Your task to perform on an android device: install app "Adobe Express: Graphic Design" Image 0: 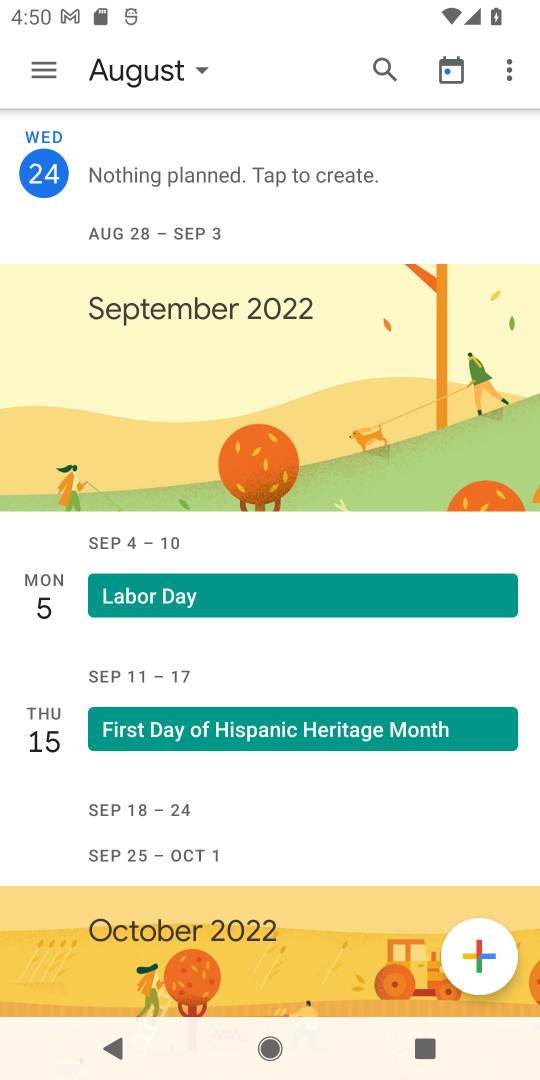
Step 0: press home button
Your task to perform on an android device: install app "Adobe Express: Graphic Design" Image 1: 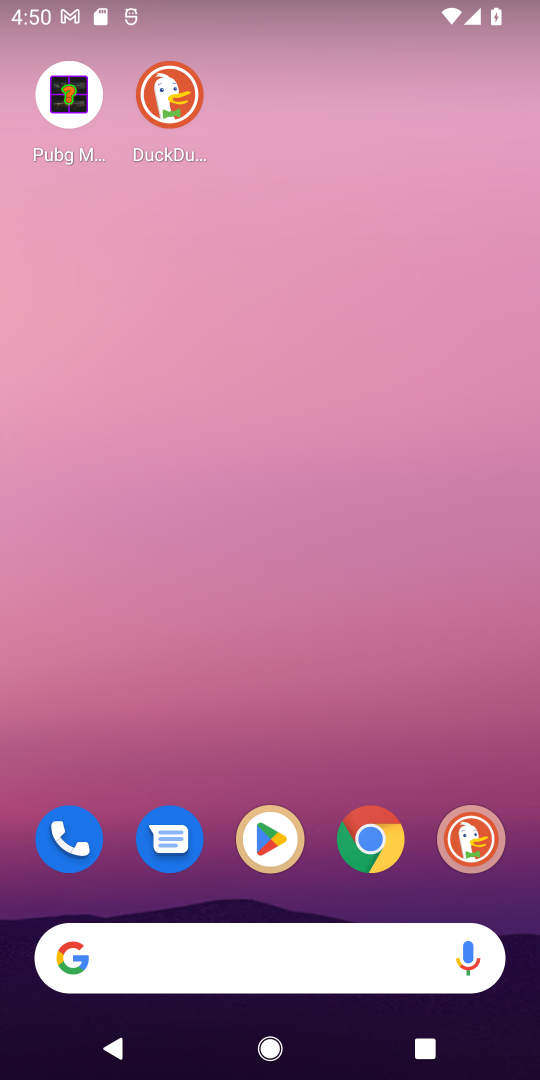
Step 1: click (265, 831)
Your task to perform on an android device: install app "Adobe Express: Graphic Design" Image 2: 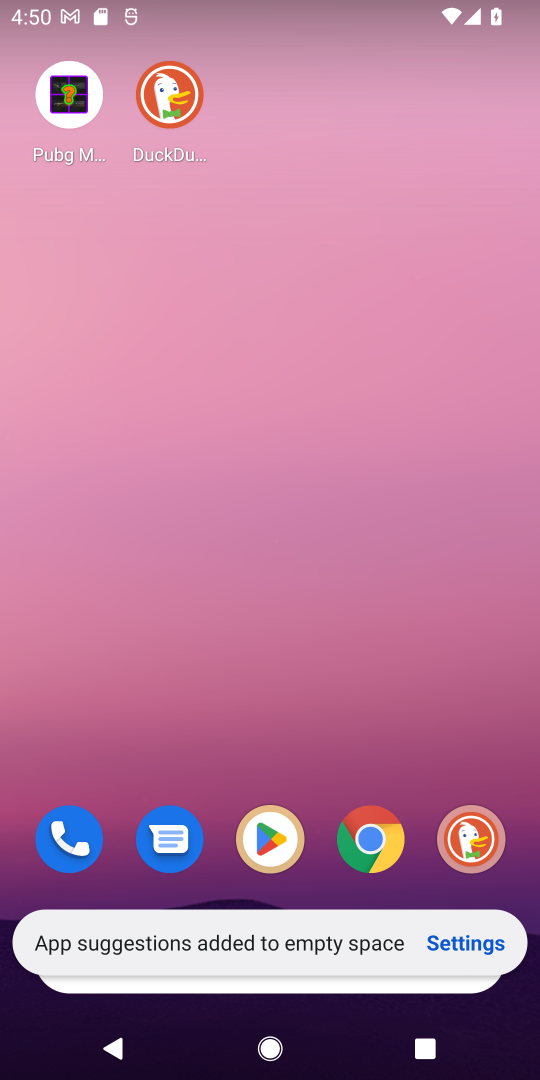
Step 2: click (265, 834)
Your task to perform on an android device: install app "Adobe Express: Graphic Design" Image 3: 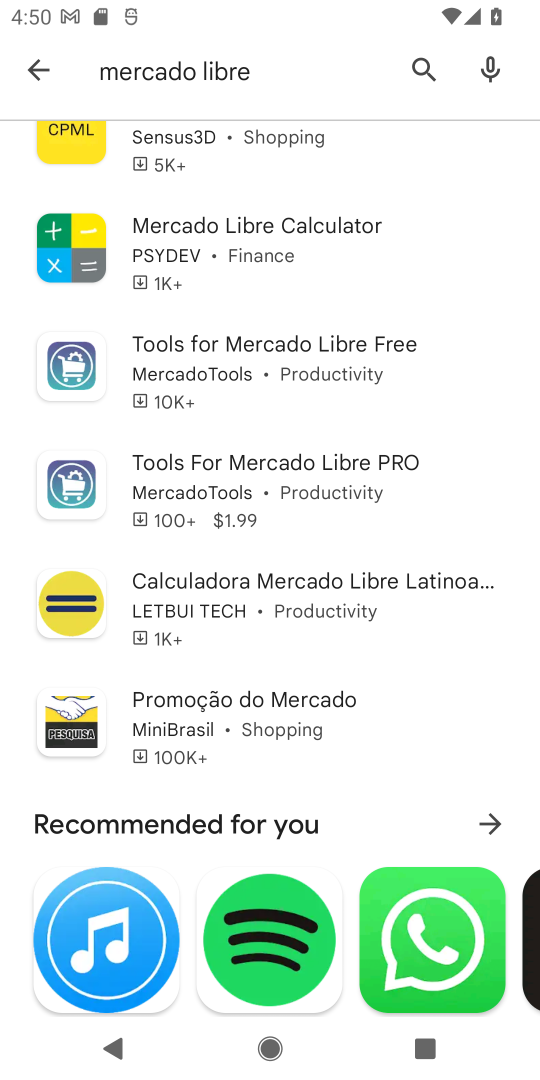
Step 3: click (423, 62)
Your task to perform on an android device: install app "Adobe Express: Graphic Design" Image 4: 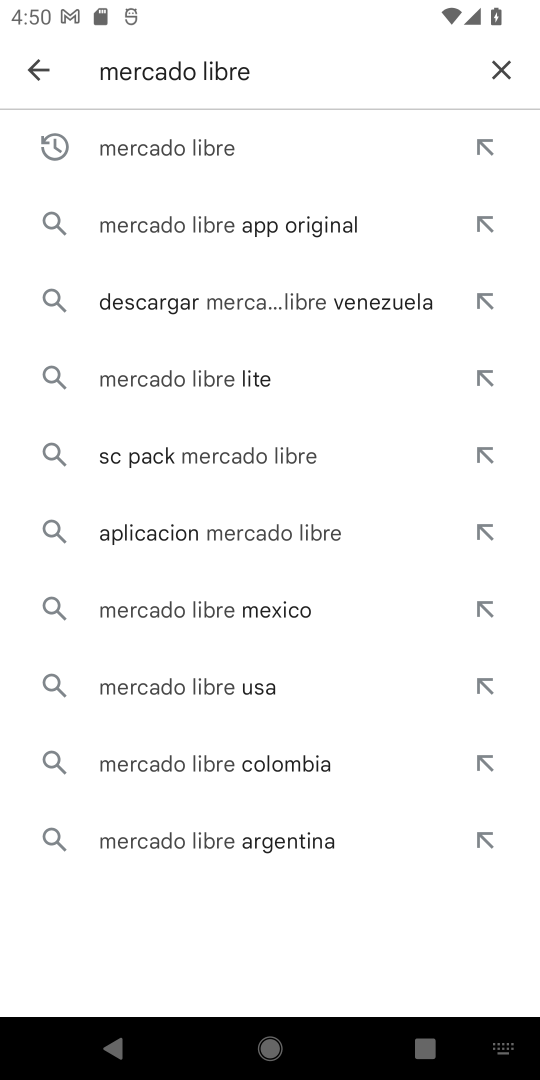
Step 4: click (504, 68)
Your task to perform on an android device: install app "Adobe Express: Graphic Design" Image 5: 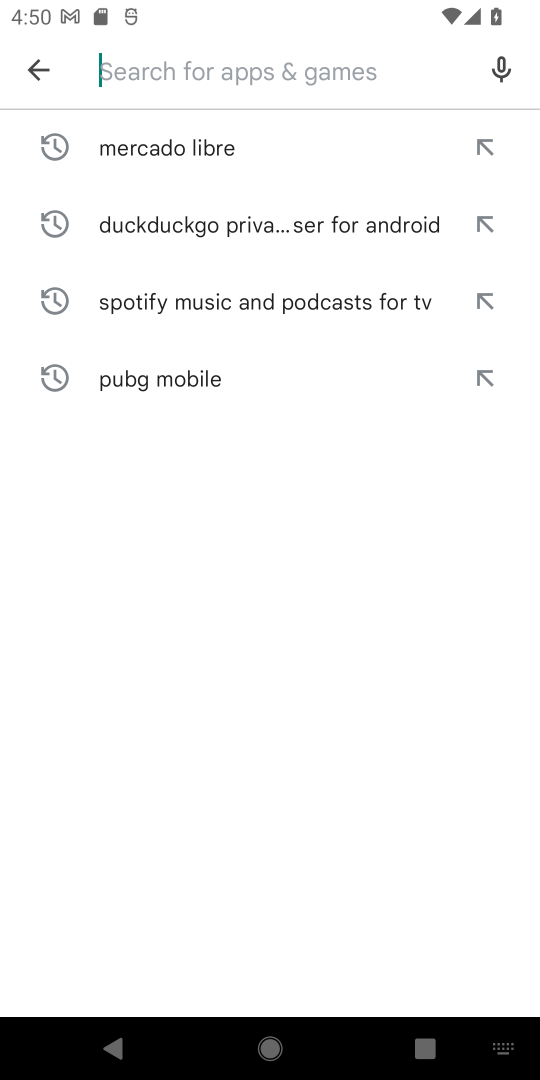
Step 5: type "Adobe Express: Graphic Design"
Your task to perform on an android device: install app "Adobe Express: Graphic Design" Image 6: 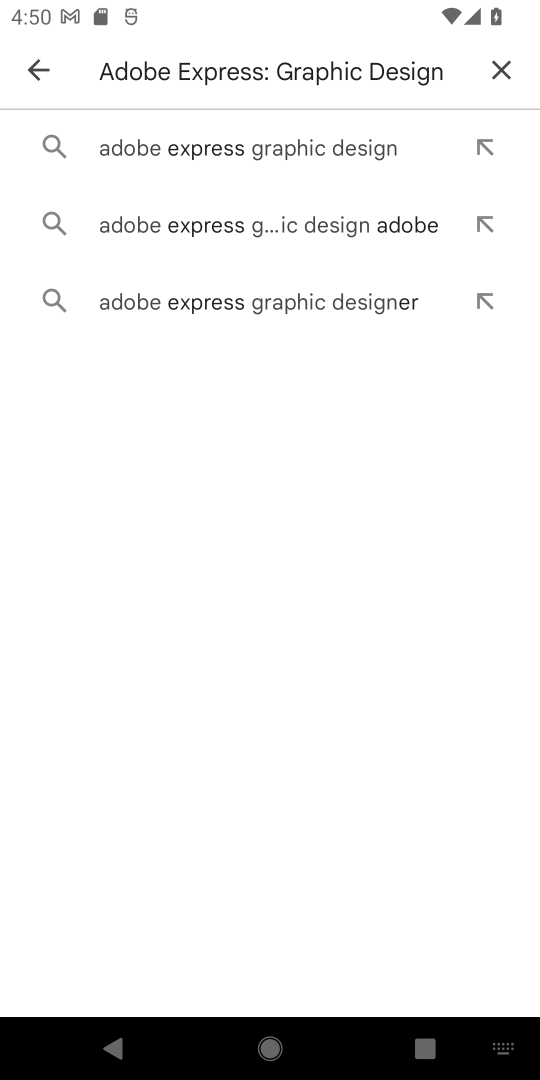
Step 6: click (312, 147)
Your task to perform on an android device: install app "Adobe Express: Graphic Design" Image 7: 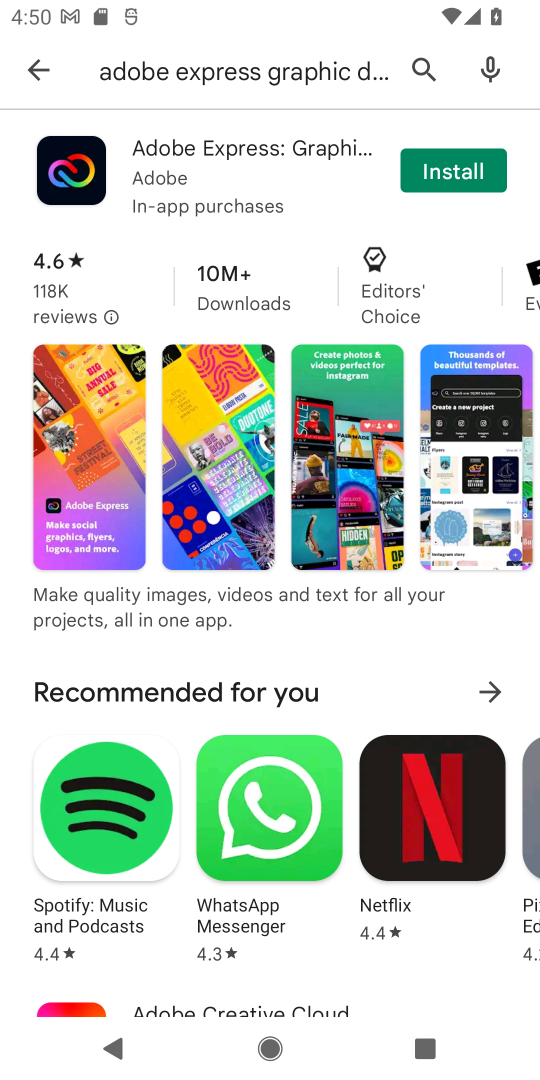
Step 7: click (459, 179)
Your task to perform on an android device: install app "Adobe Express: Graphic Design" Image 8: 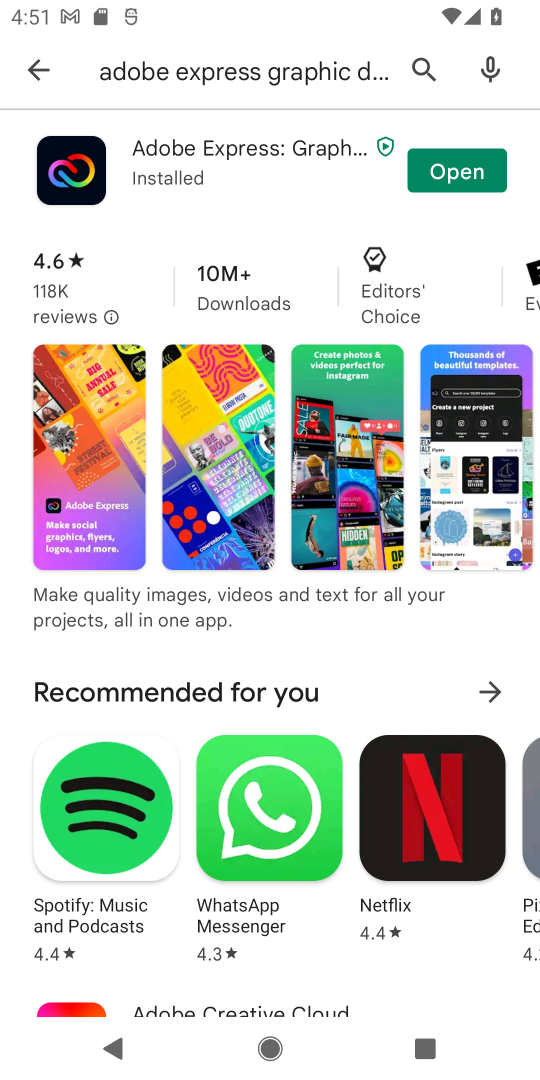
Step 8: task complete